Your task to perform on an android device: turn on wifi Image 0: 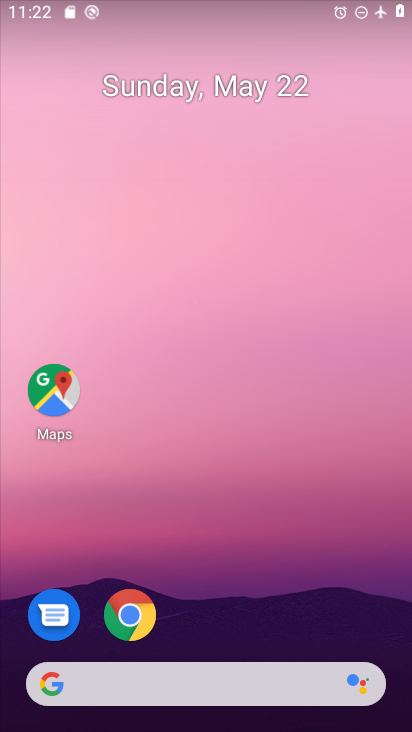
Step 0: drag from (306, 605) to (167, 60)
Your task to perform on an android device: turn on wifi Image 1: 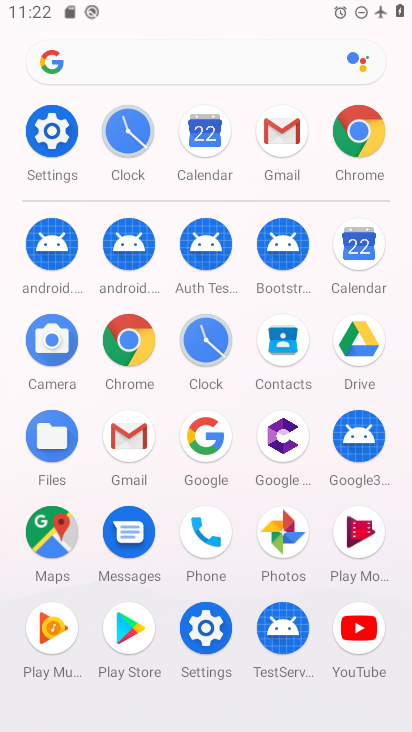
Step 1: click (40, 129)
Your task to perform on an android device: turn on wifi Image 2: 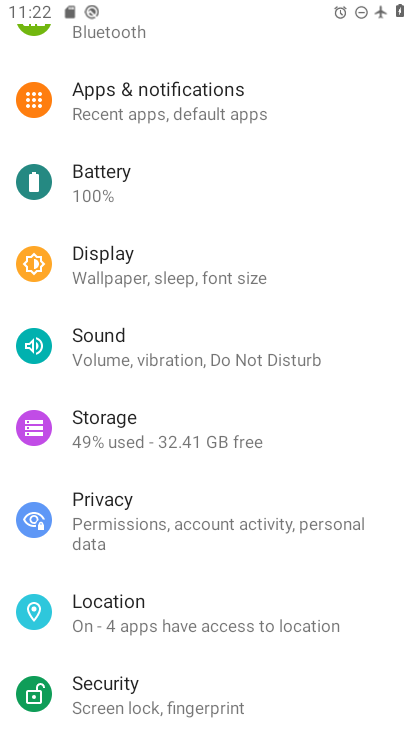
Step 2: drag from (142, 147) to (182, 609)
Your task to perform on an android device: turn on wifi Image 3: 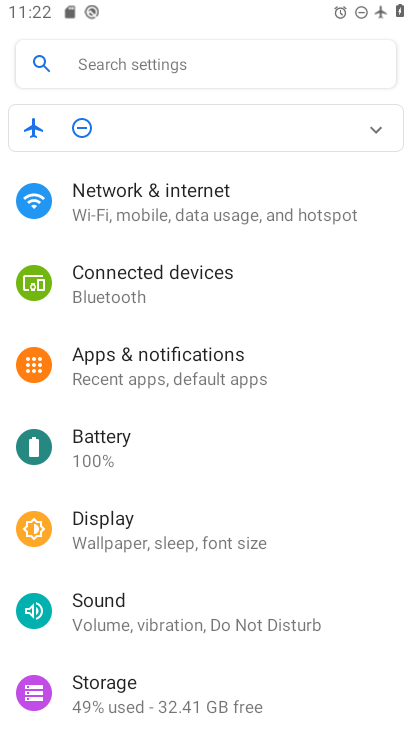
Step 3: click (179, 196)
Your task to perform on an android device: turn on wifi Image 4: 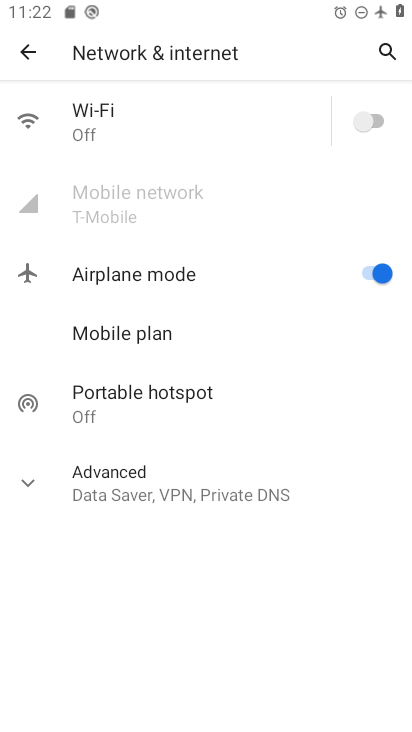
Step 4: click (356, 110)
Your task to perform on an android device: turn on wifi Image 5: 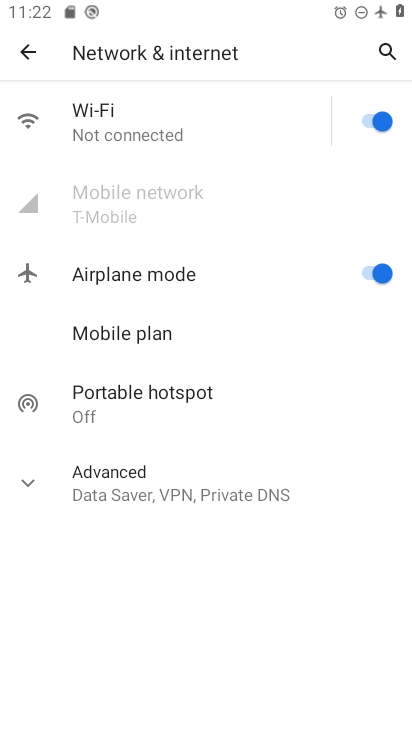
Step 5: task complete